Your task to perform on an android device: toggle sleep mode Image 0: 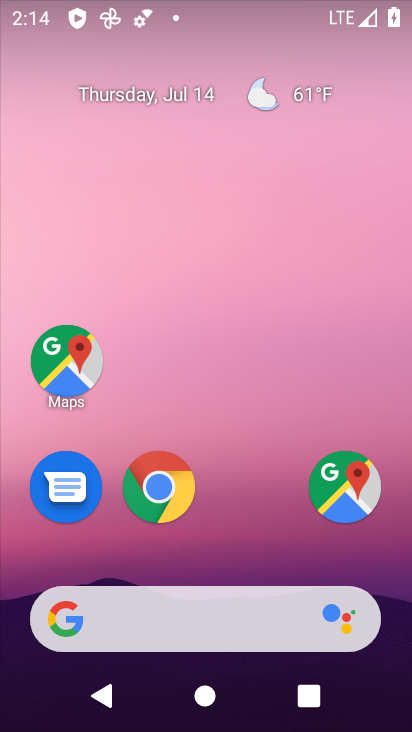
Step 0: drag from (273, 544) to (311, 105)
Your task to perform on an android device: toggle sleep mode Image 1: 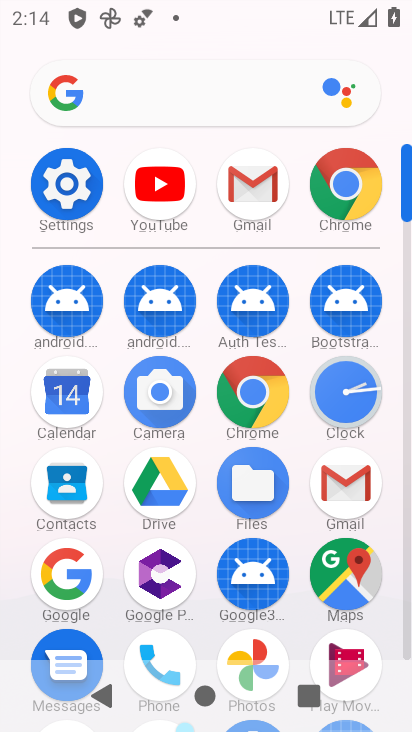
Step 1: click (85, 190)
Your task to perform on an android device: toggle sleep mode Image 2: 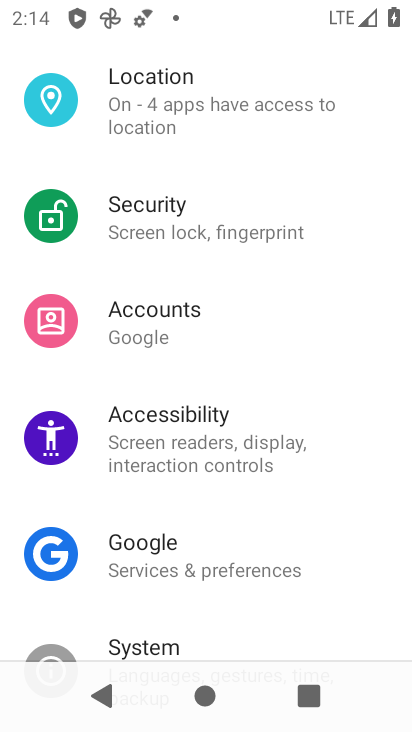
Step 2: drag from (338, 235) to (334, 323)
Your task to perform on an android device: toggle sleep mode Image 3: 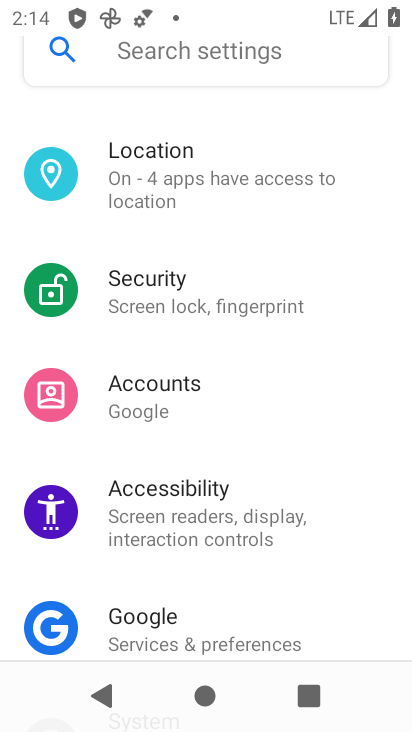
Step 3: drag from (353, 242) to (348, 344)
Your task to perform on an android device: toggle sleep mode Image 4: 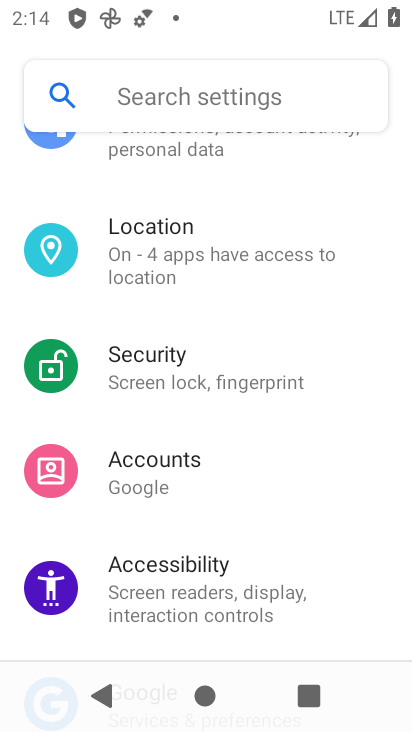
Step 4: drag from (362, 270) to (362, 382)
Your task to perform on an android device: toggle sleep mode Image 5: 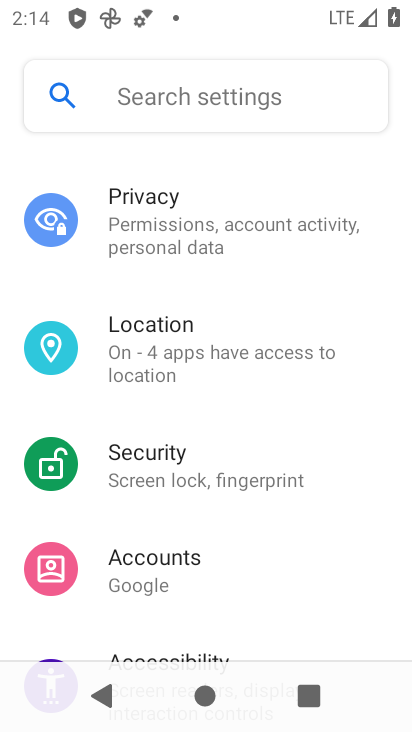
Step 5: drag from (361, 274) to (352, 363)
Your task to perform on an android device: toggle sleep mode Image 6: 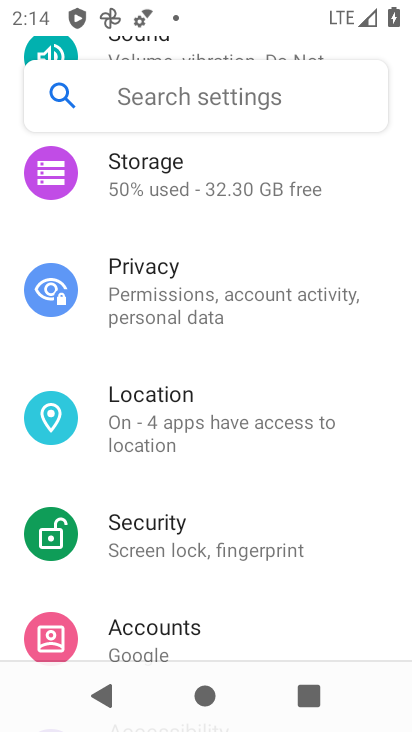
Step 6: drag from (361, 242) to (360, 342)
Your task to perform on an android device: toggle sleep mode Image 7: 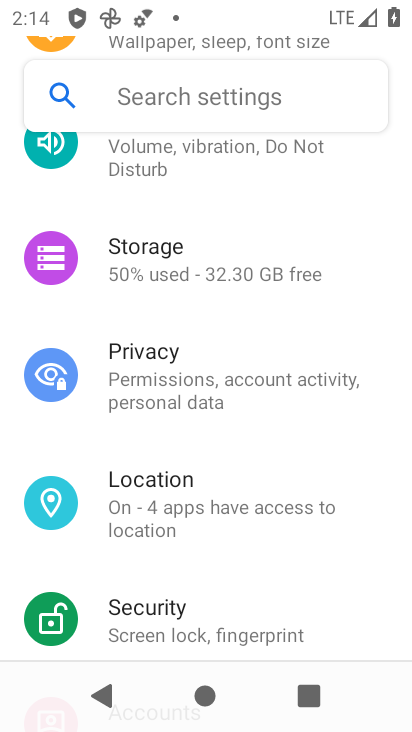
Step 7: drag from (356, 243) to (357, 335)
Your task to perform on an android device: toggle sleep mode Image 8: 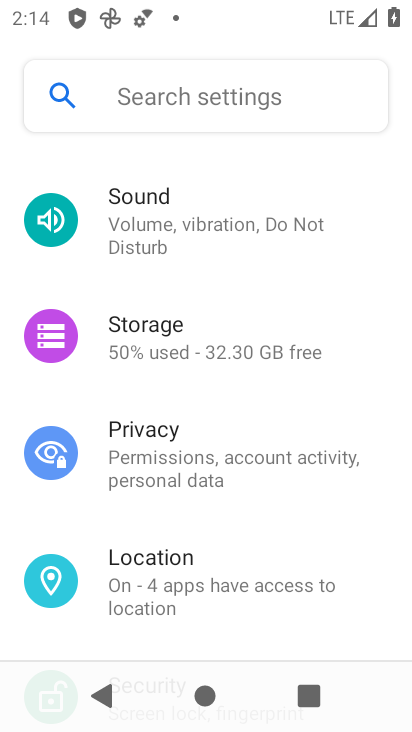
Step 8: drag from (354, 250) to (348, 353)
Your task to perform on an android device: toggle sleep mode Image 9: 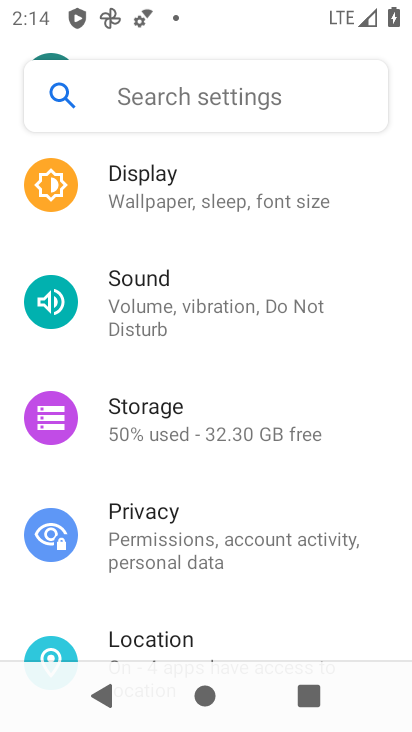
Step 9: drag from (360, 271) to (360, 379)
Your task to perform on an android device: toggle sleep mode Image 10: 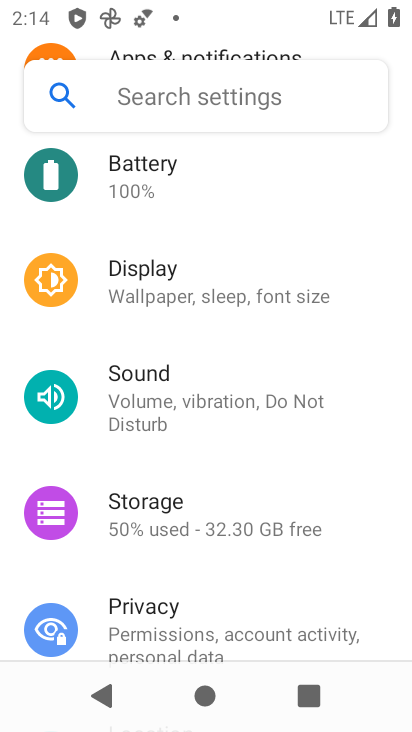
Step 10: drag from (344, 178) to (356, 333)
Your task to perform on an android device: toggle sleep mode Image 11: 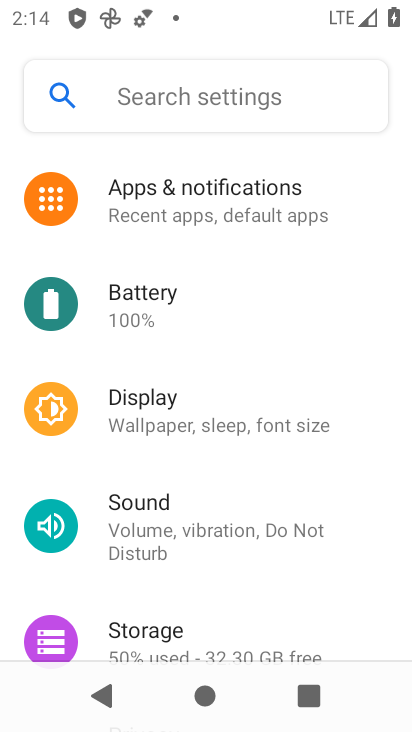
Step 11: click (286, 423)
Your task to perform on an android device: toggle sleep mode Image 12: 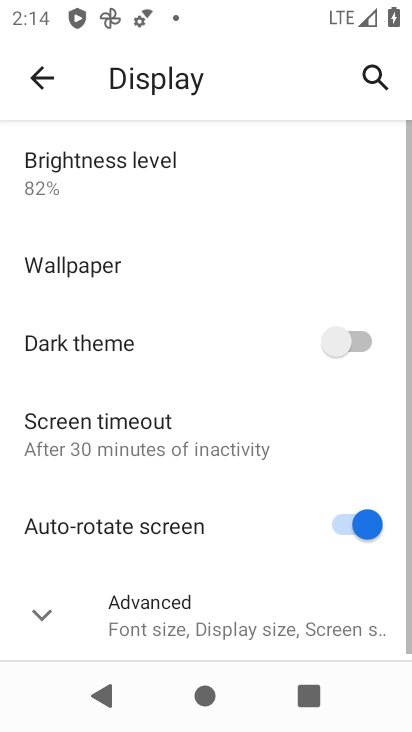
Step 12: drag from (285, 526) to (291, 449)
Your task to perform on an android device: toggle sleep mode Image 13: 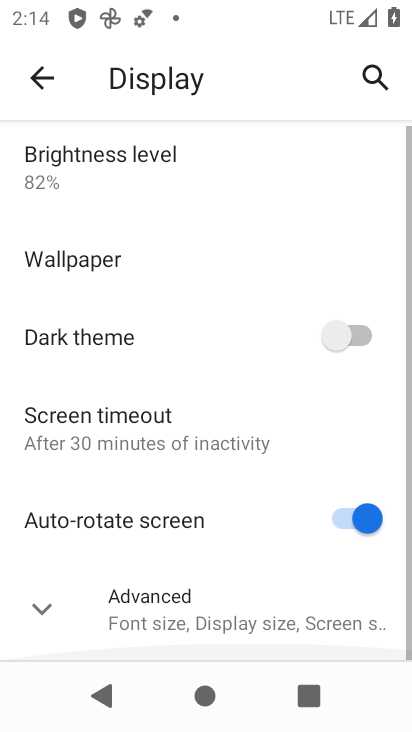
Step 13: click (291, 597)
Your task to perform on an android device: toggle sleep mode Image 14: 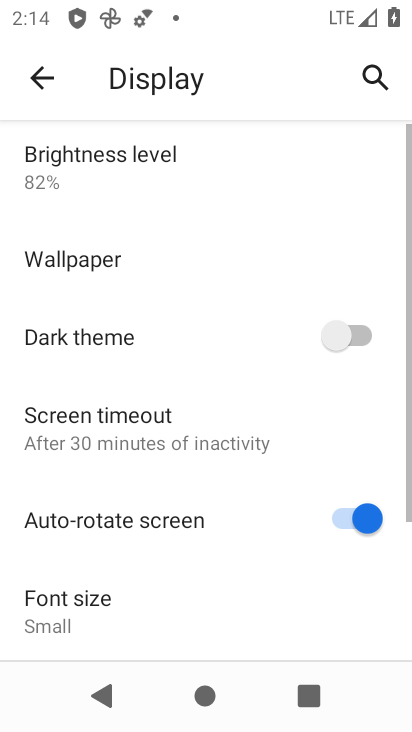
Step 14: task complete